Your task to perform on an android device: delete a single message in the gmail app Image 0: 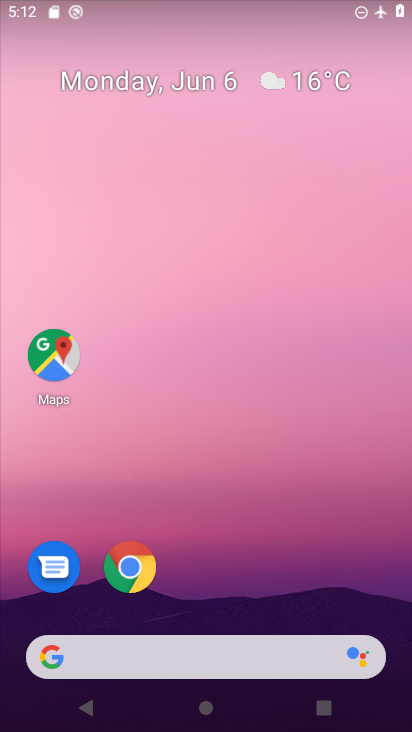
Step 0: drag from (321, 611) to (255, 150)
Your task to perform on an android device: delete a single message in the gmail app Image 1: 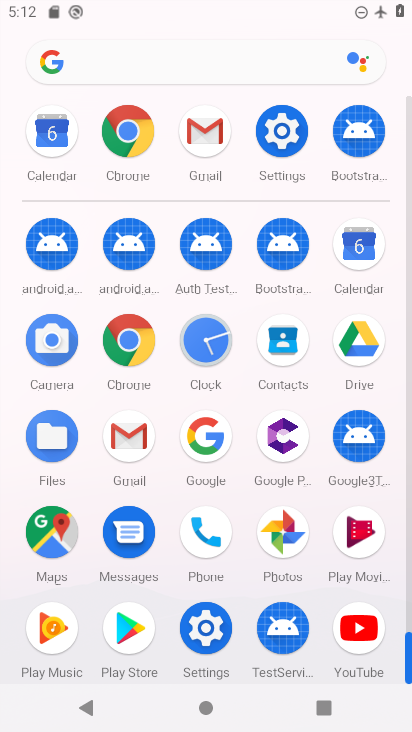
Step 1: click (113, 455)
Your task to perform on an android device: delete a single message in the gmail app Image 2: 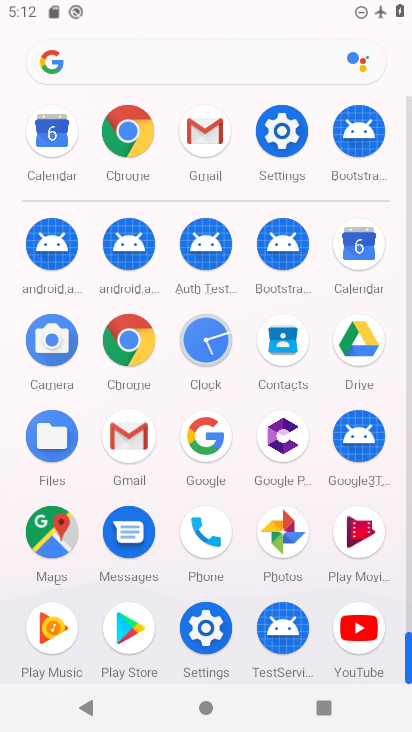
Step 2: click (123, 440)
Your task to perform on an android device: delete a single message in the gmail app Image 3: 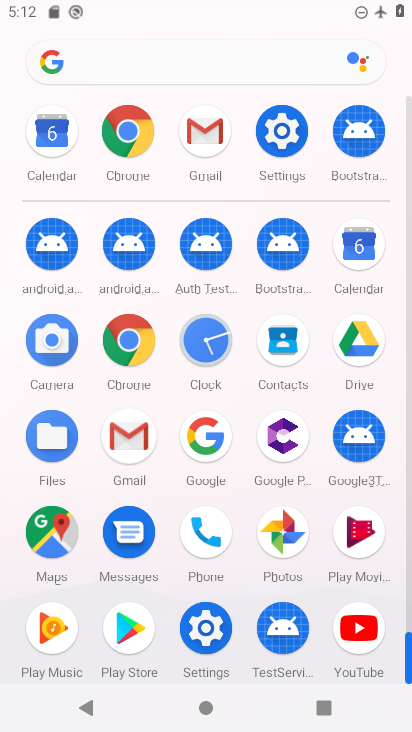
Step 3: click (134, 436)
Your task to perform on an android device: delete a single message in the gmail app Image 4: 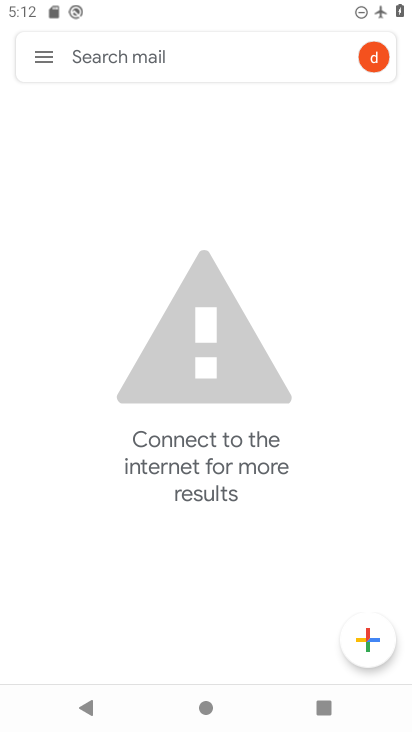
Step 4: click (133, 438)
Your task to perform on an android device: delete a single message in the gmail app Image 5: 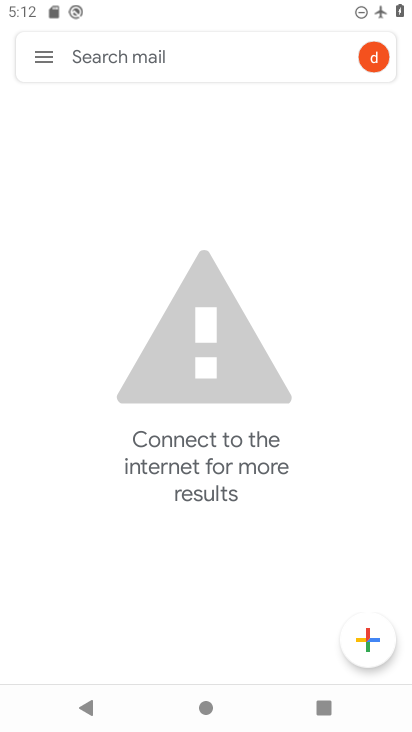
Step 5: click (132, 438)
Your task to perform on an android device: delete a single message in the gmail app Image 6: 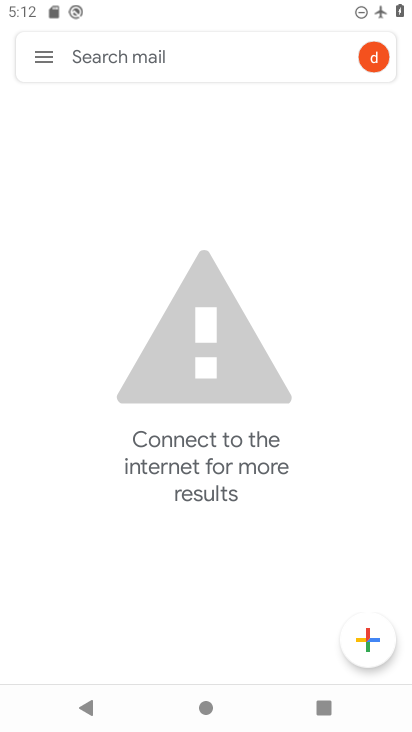
Step 6: click (50, 51)
Your task to perform on an android device: delete a single message in the gmail app Image 7: 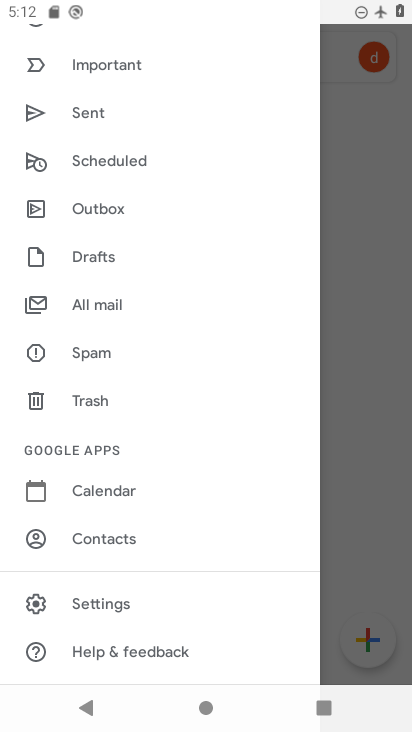
Step 7: click (97, 309)
Your task to perform on an android device: delete a single message in the gmail app Image 8: 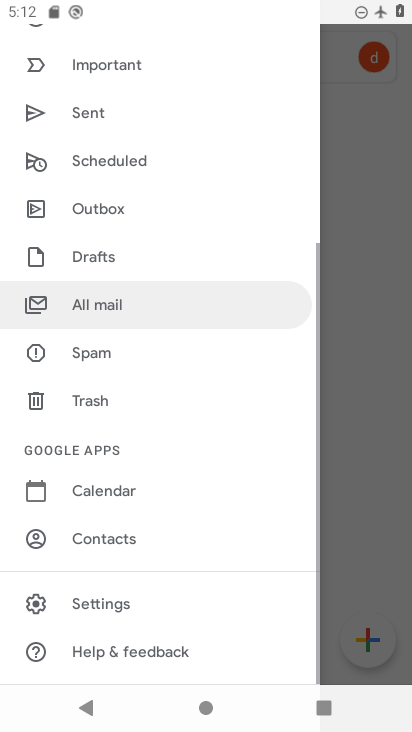
Step 8: click (97, 309)
Your task to perform on an android device: delete a single message in the gmail app Image 9: 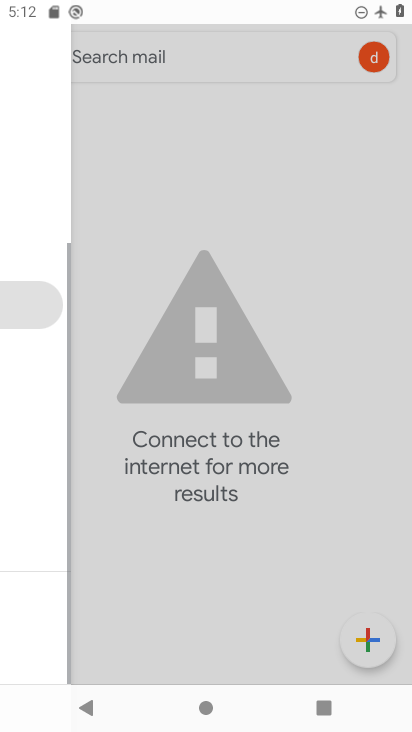
Step 9: click (97, 309)
Your task to perform on an android device: delete a single message in the gmail app Image 10: 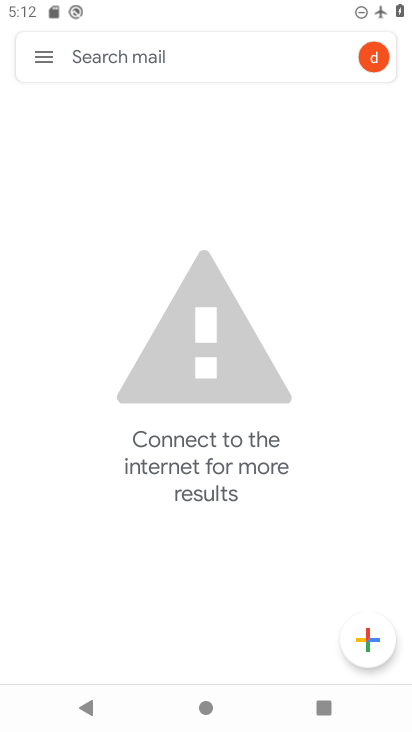
Step 10: click (97, 309)
Your task to perform on an android device: delete a single message in the gmail app Image 11: 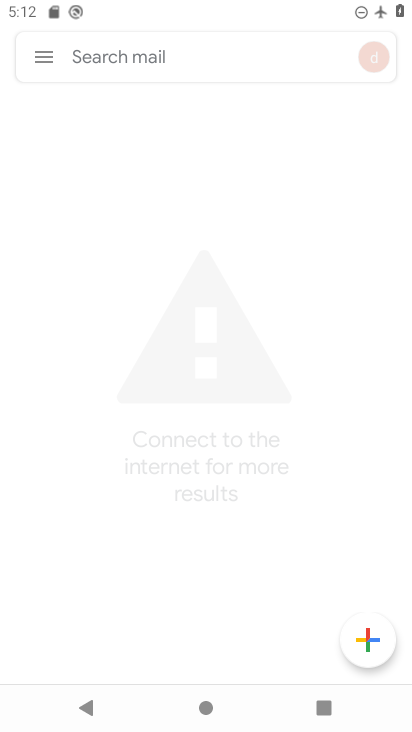
Step 11: click (96, 308)
Your task to perform on an android device: delete a single message in the gmail app Image 12: 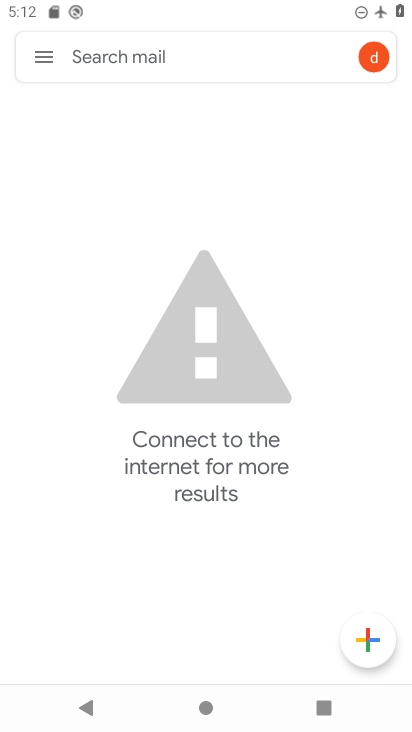
Step 12: task complete